Your task to perform on an android device: open sync settings in chrome Image 0: 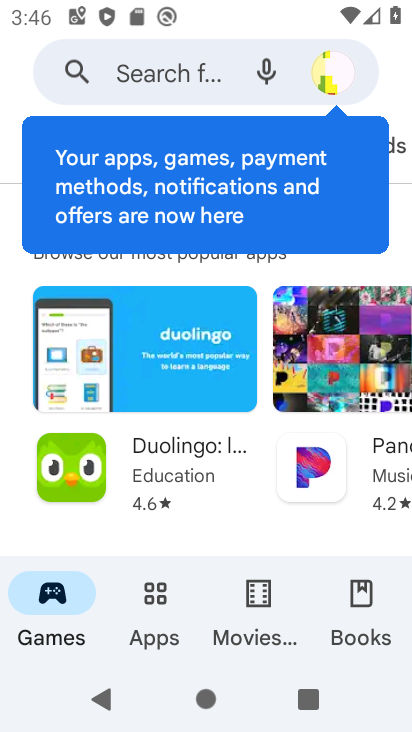
Step 0: press back button
Your task to perform on an android device: open sync settings in chrome Image 1: 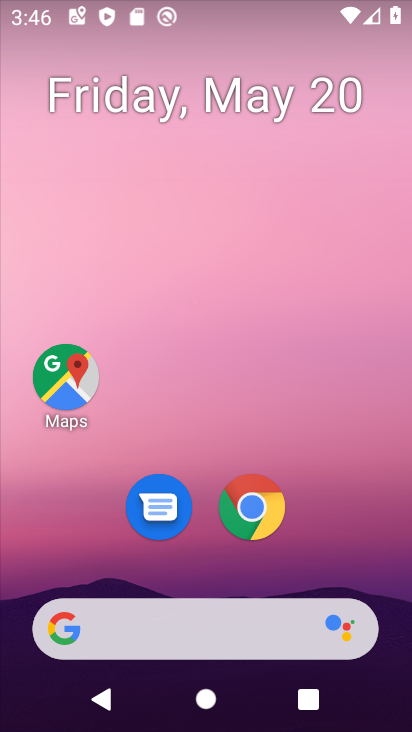
Step 1: click (250, 506)
Your task to perform on an android device: open sync settings in chrome Image 2: 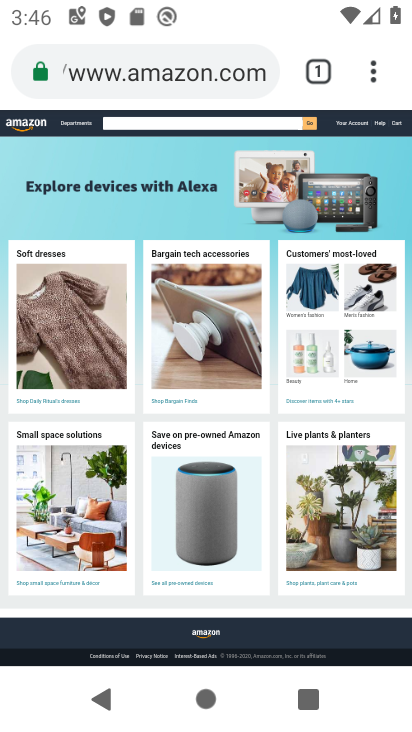
Step 2: click (373, 67)
Your task to perform on an android device: open sync settings in chrome Image 3: 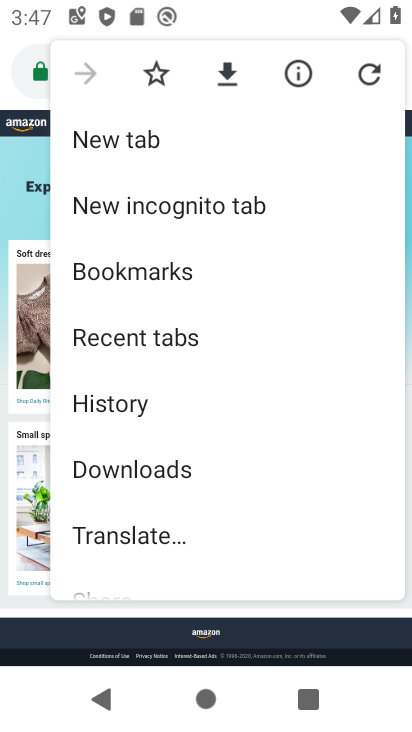
Step 3: drag from (166, 411) to (197, 320)
Your task to perform on an android device: open sync settings in chrome Image 4: 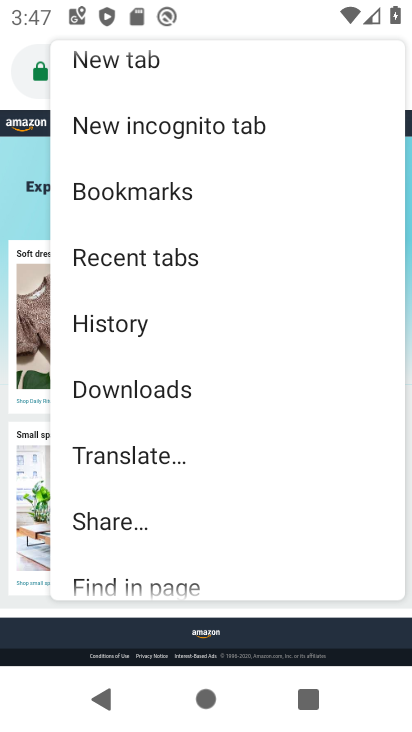
Step 4: drag from (158, 481) to (204, 325)
Your task to perform on an android device: open sync settings in chrome Image 5: 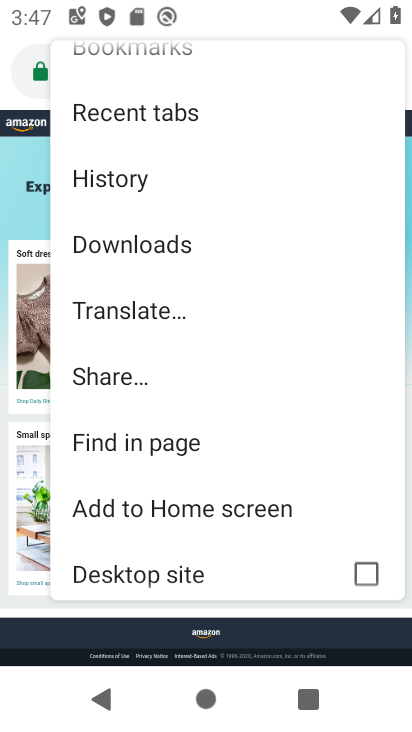
Step 5: drag from (145, 473) to (217, 362)
Your task to perform on an android device: open sync settings in chrome Image 6: 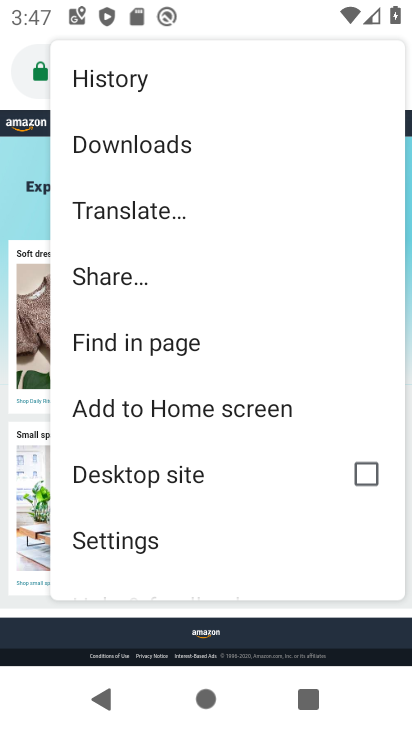
Step 6: click (127, 533)
Your task to perform on an android device: open sync settings in chrome Image 7: 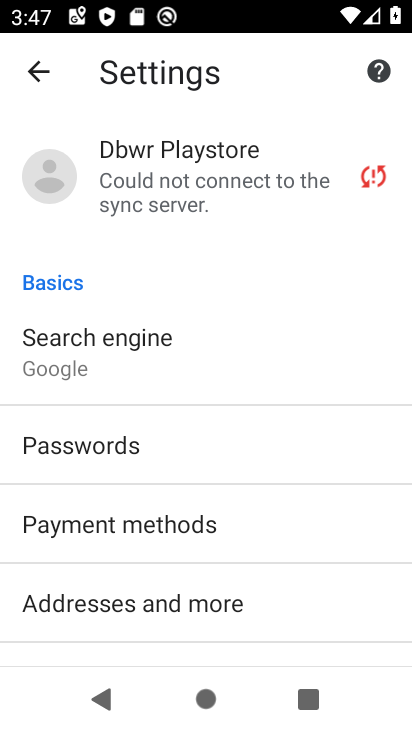
Step 7: drag from (146, 548) to (190, 409)
Your task to perform on an android device: open sync settings in chrome Image 8: 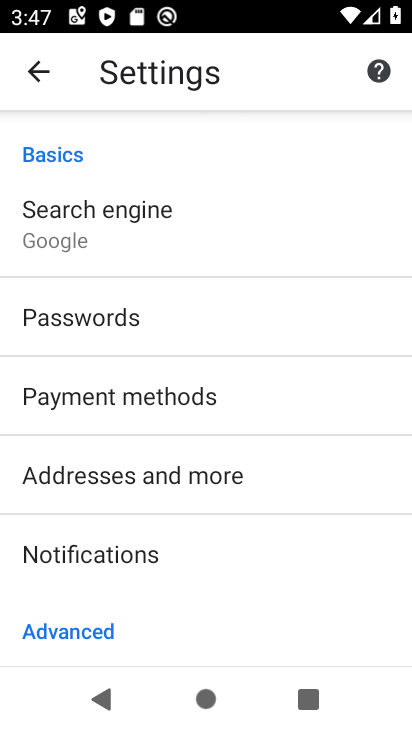
Step 8: drag from (151, 518) to (189, 389)
Your task to perform on an android device: open sync settings in chrome Image 9: 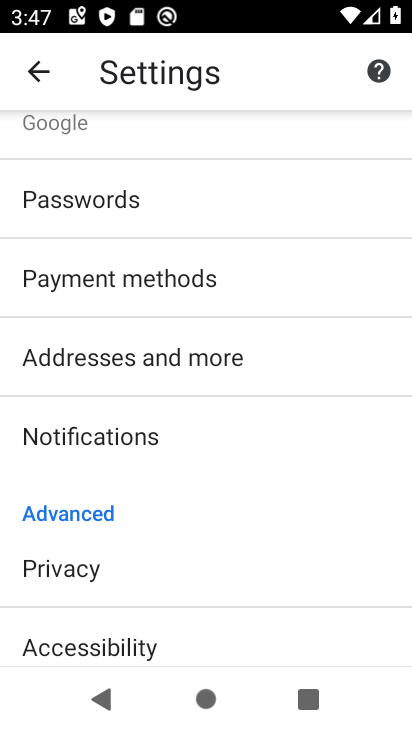
Step 9: drag from (117, 565) to (174, 465)
Your task to perform on an android device: open sync settings in chrome Image 10: 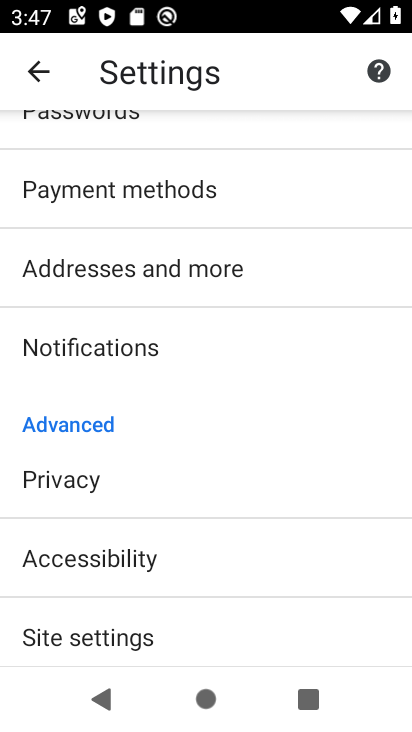
Step 10: drag from (121, 581) to (191, 449)
Your task to perform on an android device: open sync settings in chrome Image 11: 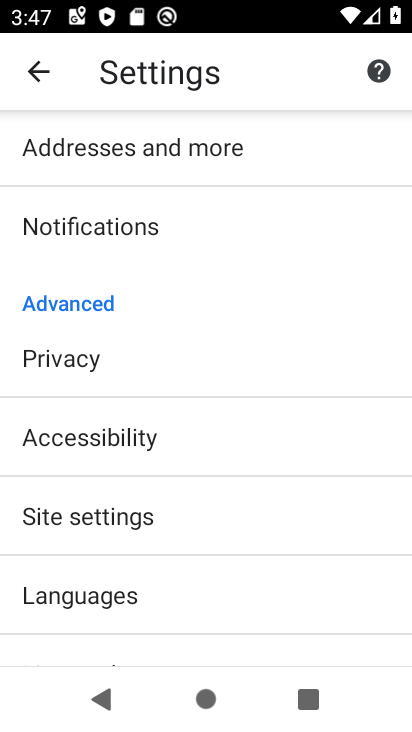
Step 11: click (119, 519)
Your task to perform on an android device: open sync settings in chrome Image 12: 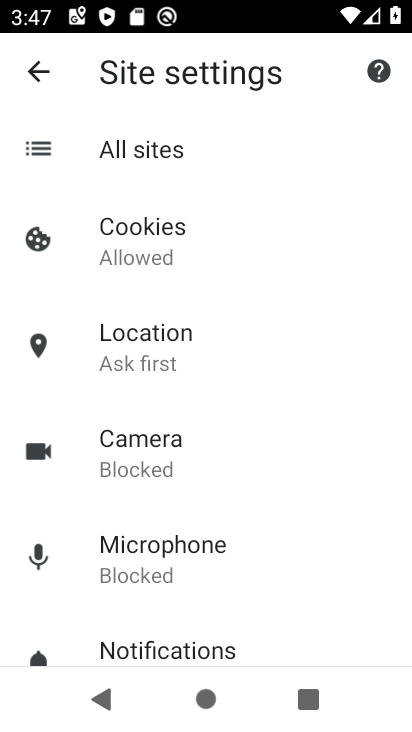
Step 12: drag from (158, 604) to (167, 477)
Your task to perform on an android device: open sync settings in chrome Image 13: 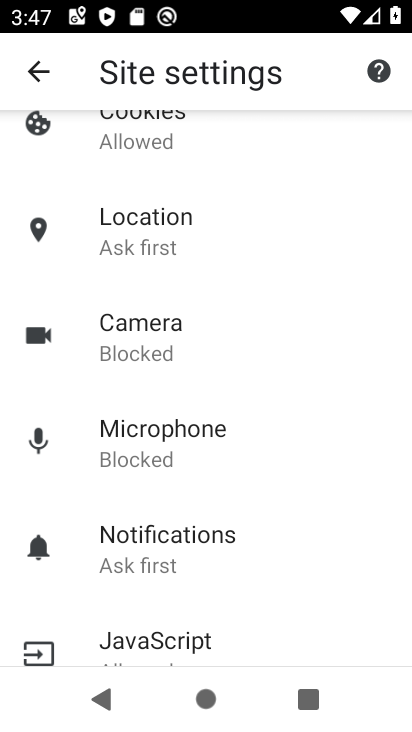
Step 13: drag from (173, 606) to (184, 474)
Your task to perform on an android device: open sync settings in chrome Image 14: 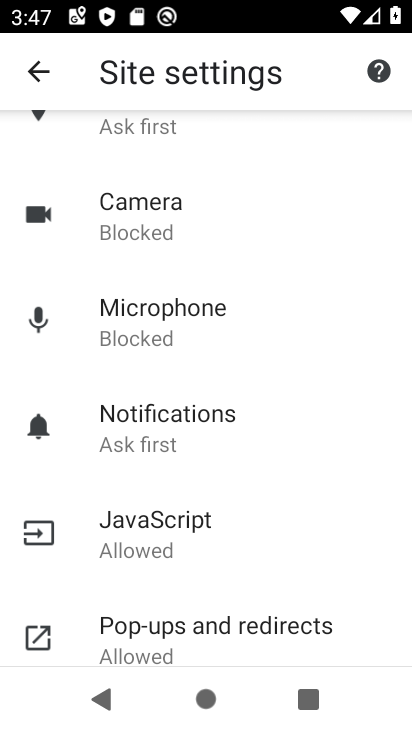
Step 14: drag from (189, 598) to (225, 468)
Your task to perform on an android device: open sync settings in chrome Image 15: 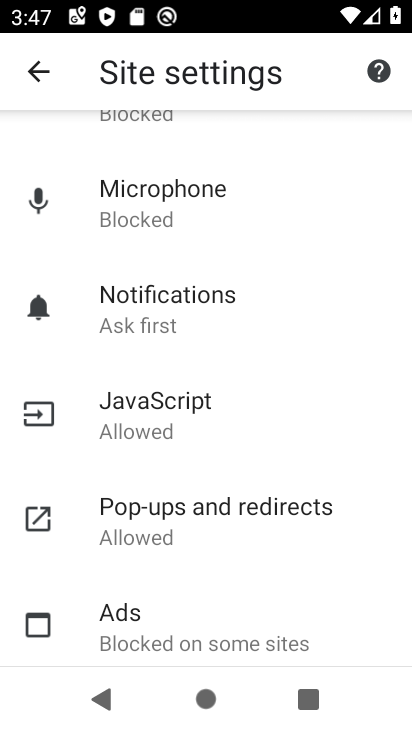
Step 15: drag from (167, 611) to (231, 474)
Your task to perform on an android device: open sync settings in chrome Image 16: 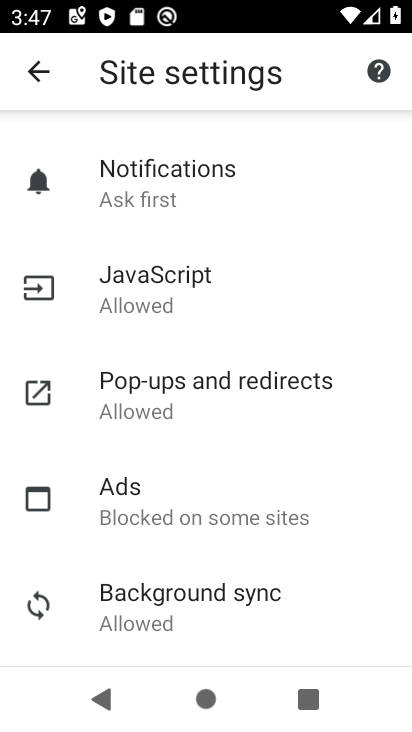
Step 16: click (176, 599)
Your task to perform on an android device: open sync settings in chrome Image 17: 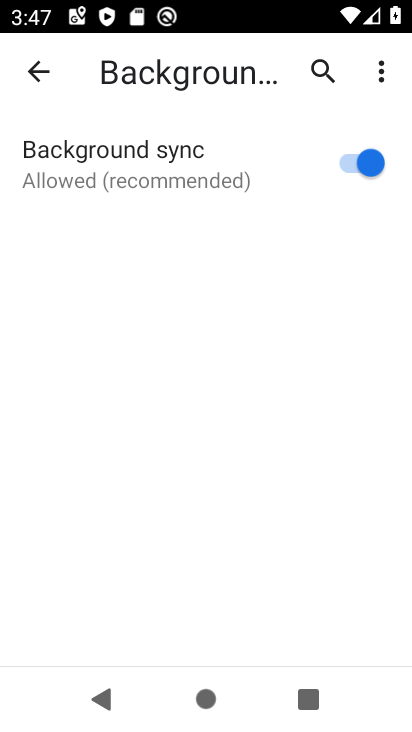
Step 17: task complete